Your task to perform on an android device: Check the weather Image 0: 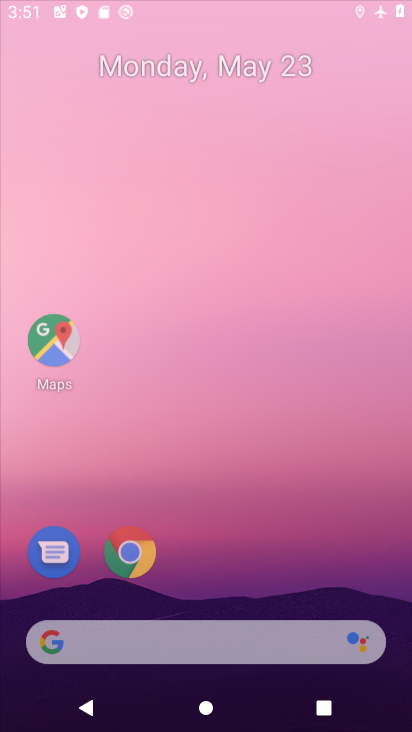
Step 0: click (303, 50)
Your task to perform on an android device: Check the weather Image 1: 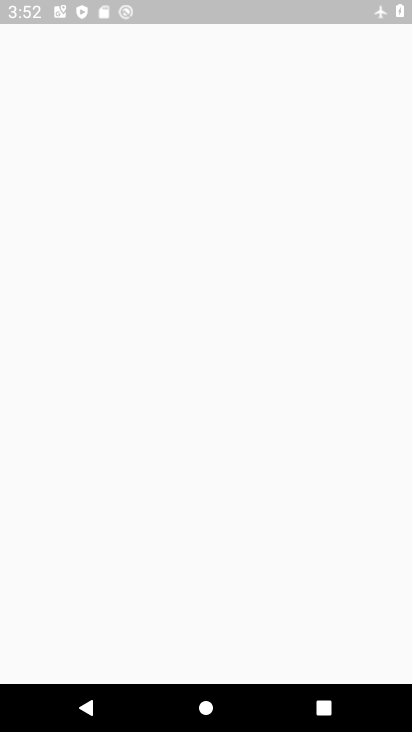
Step 1: press home button
Your task to perform on an android device: Check the weather Image 2: 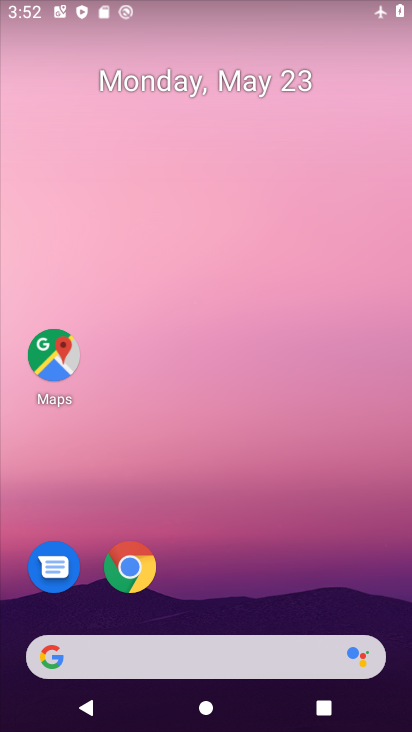
Step 2: drag from (12, 146) to (334, 128)
Your task to perform on an android device: Check the weather Image 3: 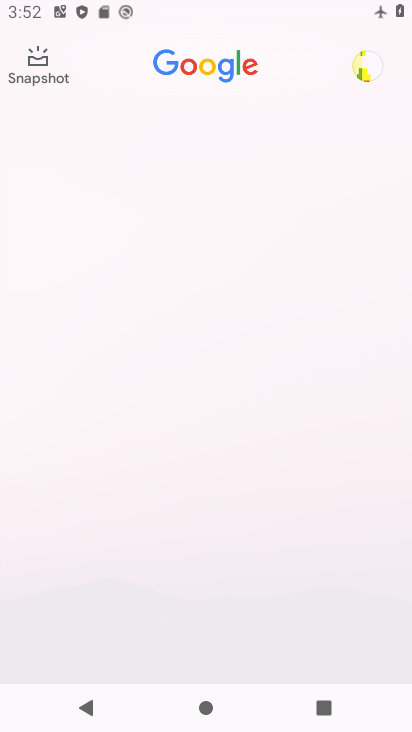
Step 3: drag from (196, 485) to (194, 417)
Your task to perform on an android device: Check the weather Image 4: 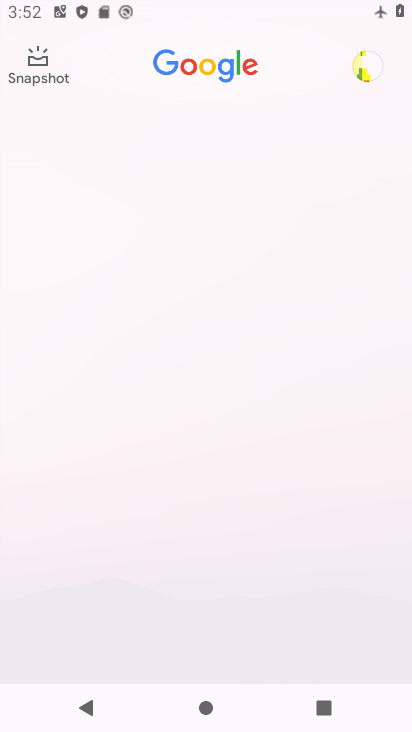
Step 4: press home button
Your task to perform on an android device: Check the weather Image 5: 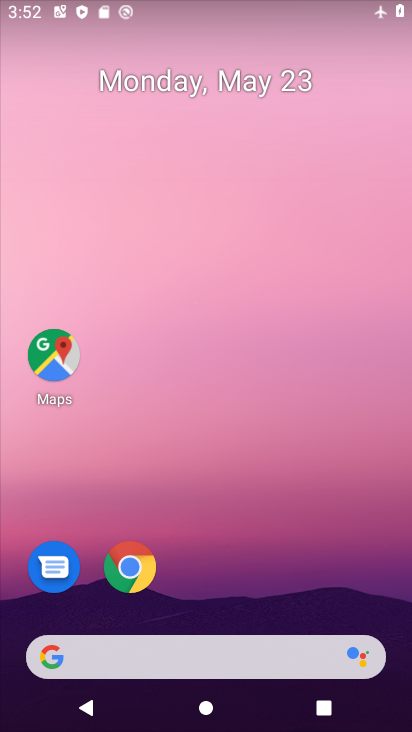
Step 5: click (179, 653)
Your task to perform on an android device: Check the weather Image 6: 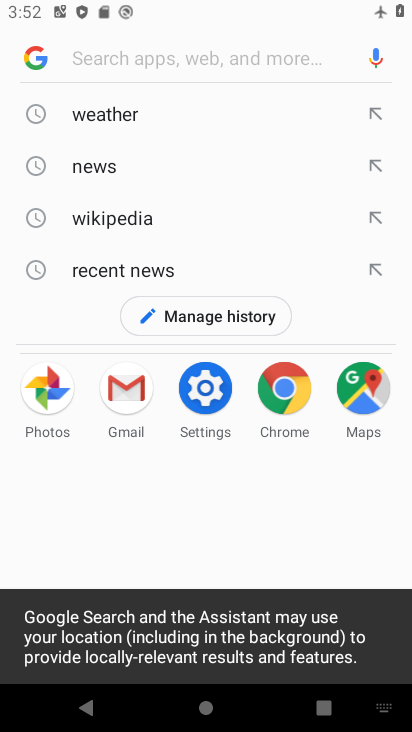
Step 6: click (107, 113)
Your task to perform on an android device: Check the weather Image 7: 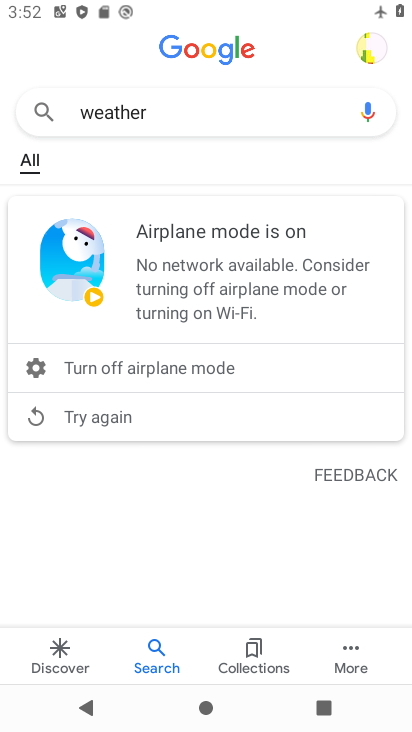
Step 7: click (92, 418)
Your task to perform on an android device: Check the weather Image 8: 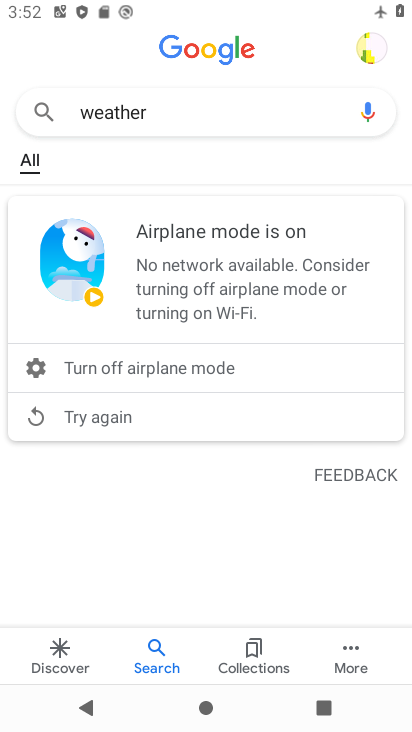
Step 8: task complete